Your task to perform on an android device: Open network settings Image 0: 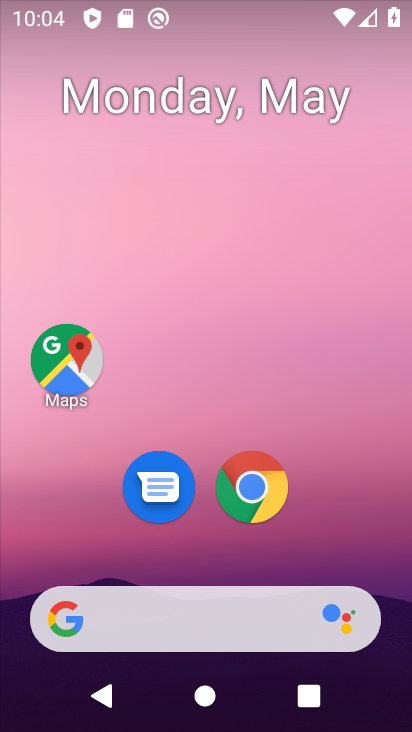
Step 0: drag from (190, 417) to (261, 53)
Your task to perform on an android device: Open network settings Image 1: 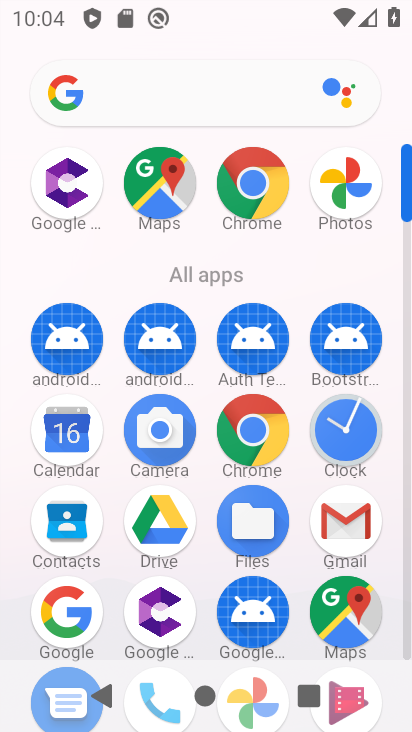
Step 1: drag from (202, 568) to (284, 156)
Your task to perform on an android device: Open network settings Image 2: 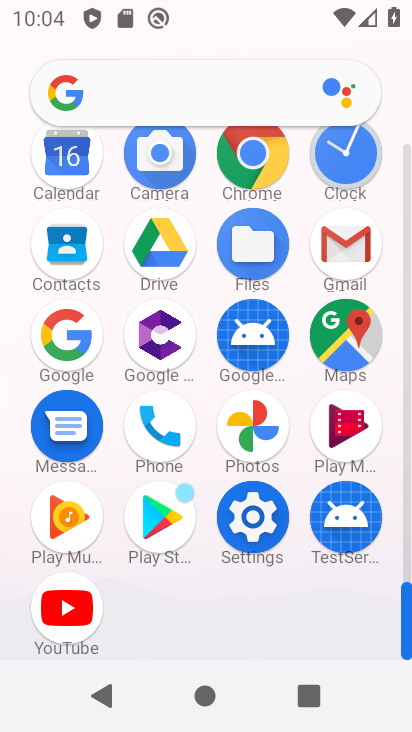
Step 2: click (251, 527)
Your task to perform on an android device: Open network settings Image 3: 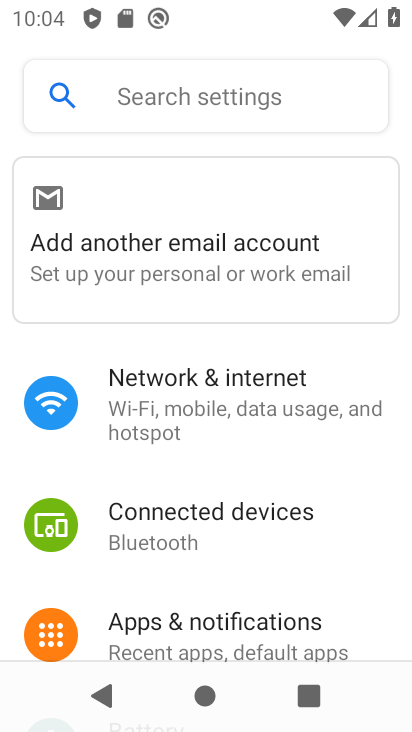
Step 3: click (243, 405)
Your task to perform on an android device: Open network settings Image 4: 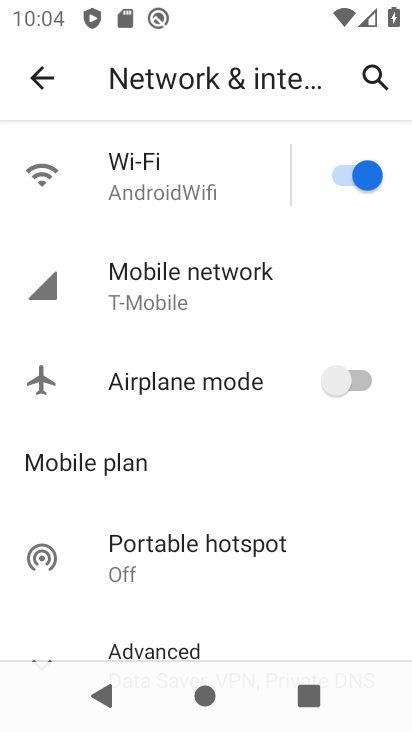
Step 4: click (212, 299)
Your task to perform on an android device: Open network settings Image 5: 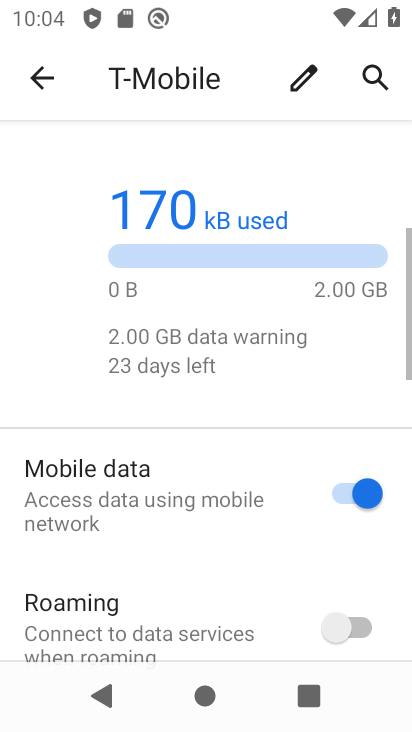
Step 5: task complete